Your task to perform on an android device: Show me popular games on the Play Store Image 0: 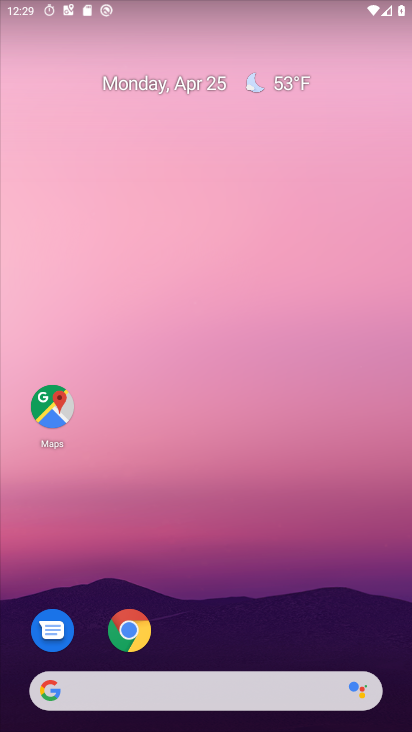
Step 0: drag from (205, 622) to (177, 231)
Your task to perform on an android device: Show me popular games on the Play Store Image 1: 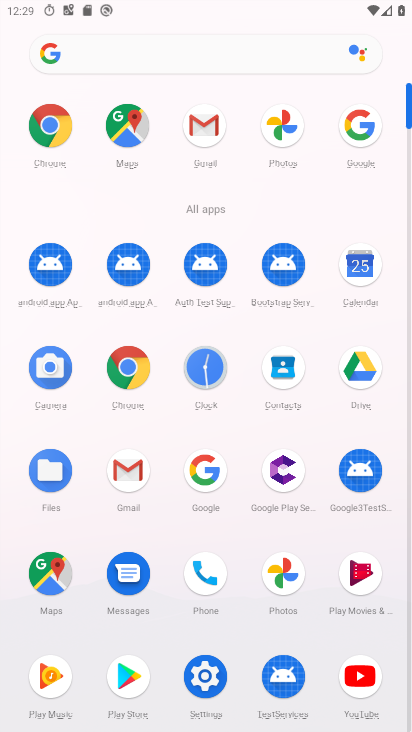
Step 1: click (125, 678)
Your task to perform on an android device: Show me popular games on the Play Store Image 2: 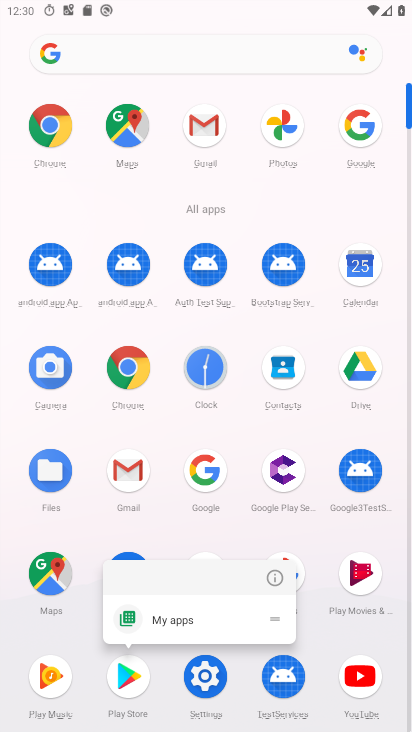
Step 2: click (272, 577)
Your task to perform on an android device: Show me popular games on the Play Store Image 3: 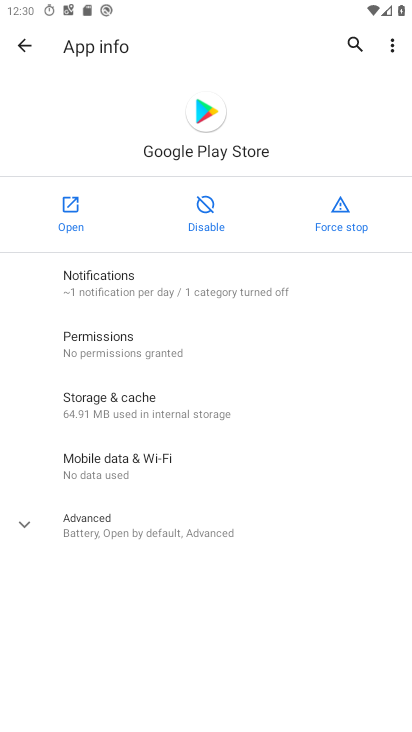
Step 3: click (61, 224)
Your task to perform on an android device: Show me popular games on the Play Store Image 4: 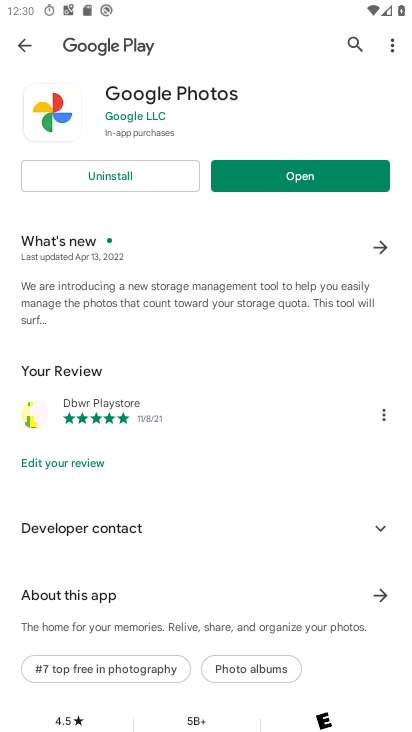
Step 4: click (19, 40)
Your task to perform on an android device: Show me popular games on the Play Store Image 5: 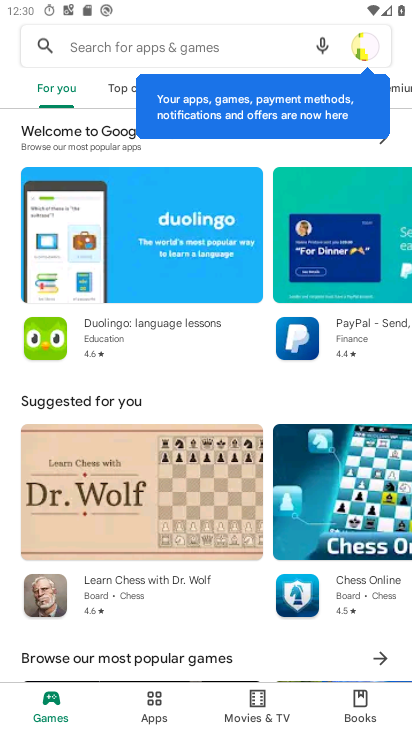
Step 5: click (124, 47)
Your task to perform on an android device: Show me popular games on the Play Store Image 6: 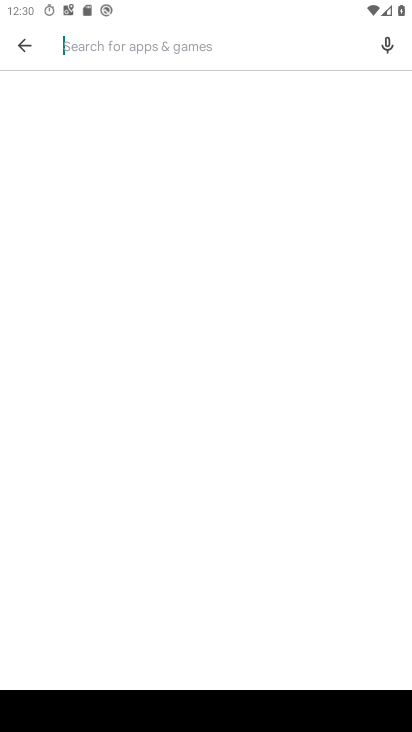
Step 6: type "games"
Your task to perform on an android device: Show me popular games on the Play Store Image 7: 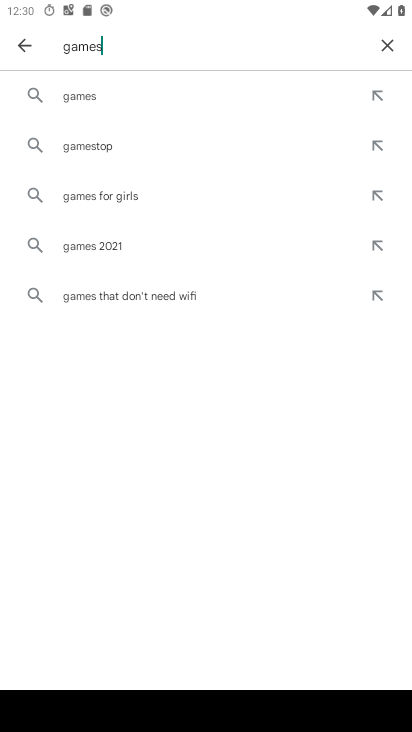
Step 7: click (154, 103)
Your task to perform on an android device: Show me popular games on the Play Store Image 8: 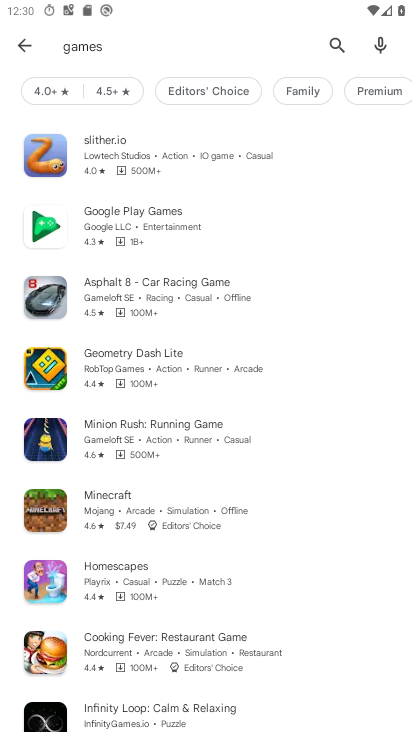
Step 8: task complete